Your task to perform on an android device: check data usage Image 0: 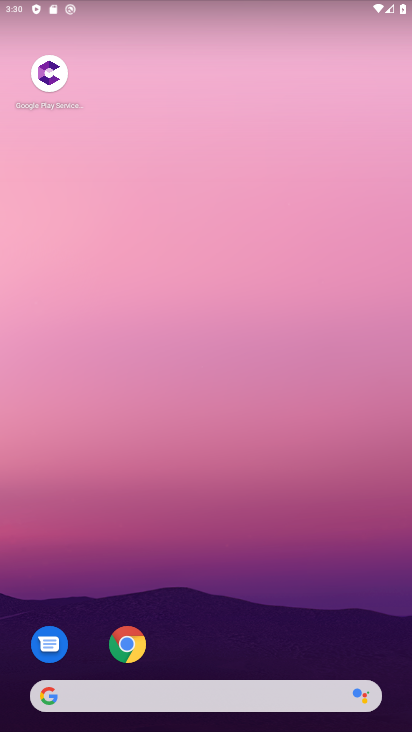
Step 0: drag from (282, 580) to (213, 62)
Your task to perform on an android device: check data usage Image 1: 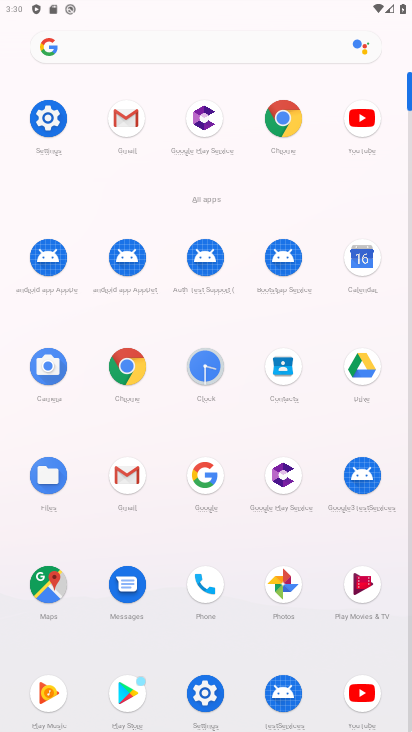
Step 1: click (49, 114)
Your task to perform on an android device: check data usage Image 2: 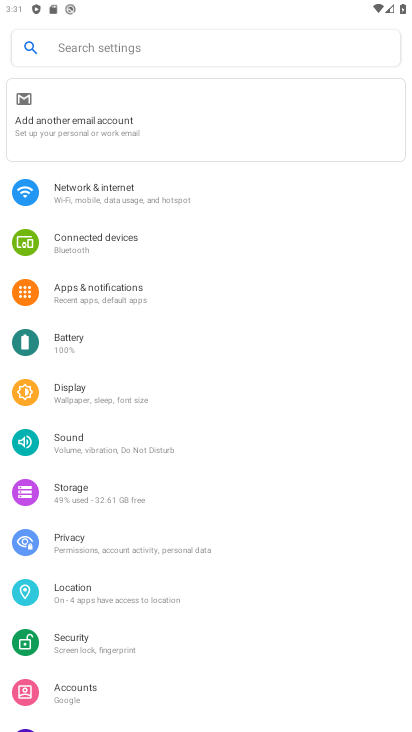
Step 2: click (125, 192)
Your task to perform on an android device: check data usage Image 3: 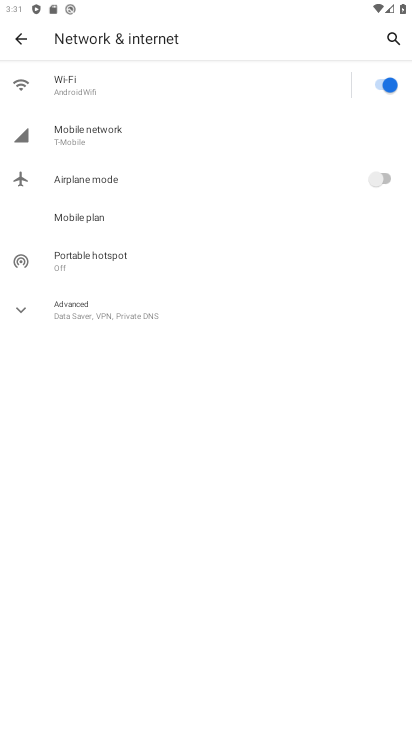
Step 3: click (163, 133)
Your task to perform on an android device: check data usage Image 4: 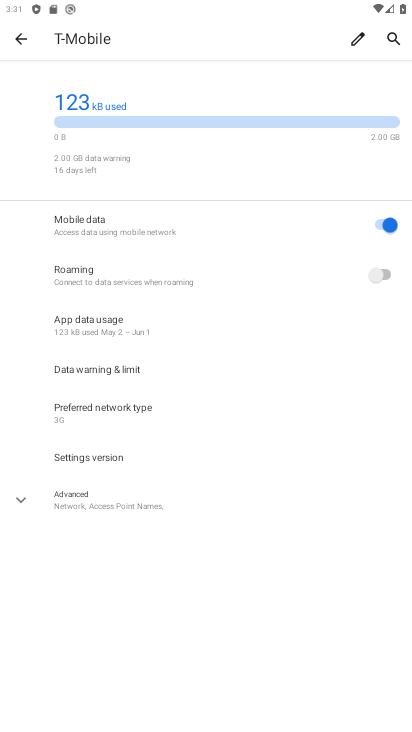
Step 4: task complete